Your task to perform on an android device: change notification settings in the gmail app Image 0: 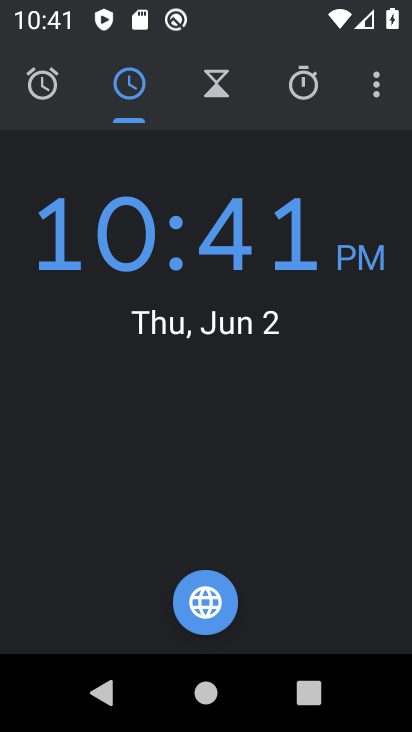
Step 0: press home button
Your task to perform on an android device: change notification settings in the gmail app Image 1: 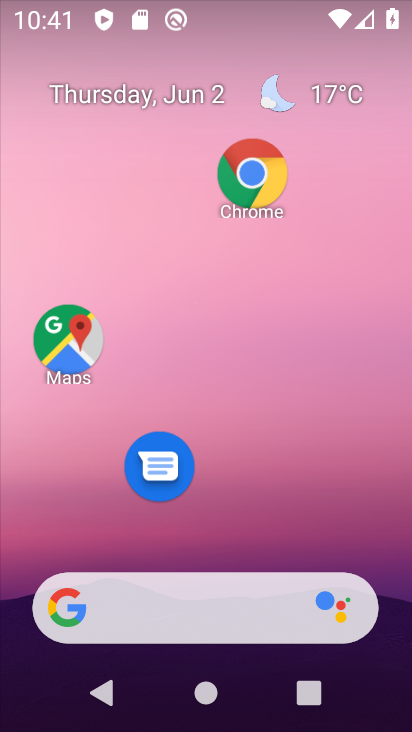
Step 1: drag from (255, 541) to (208, 55)
Your task to perform on an android device: change notification settings in the gmail app Image 2: 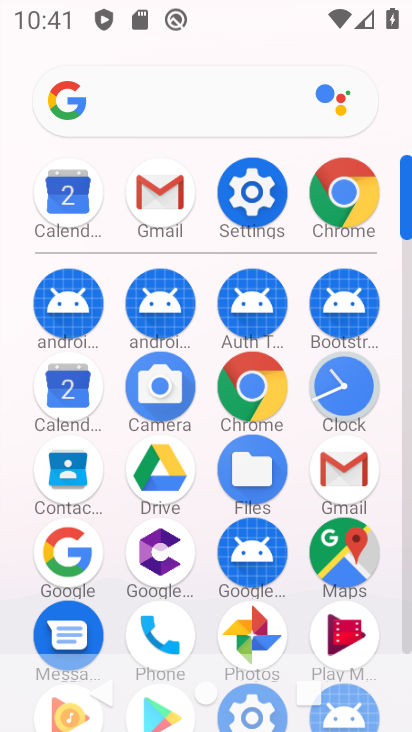
Step 2: click (155, 187)
Your task to perform on an android device: change notification settings in the gmail app Image 3: 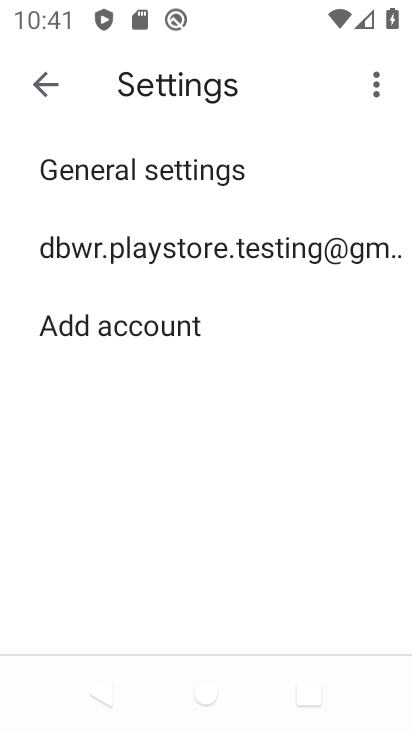
Step 3: click (129, 175)
Your task to perform on an android device: change notification settings in the gmail app Image 4: 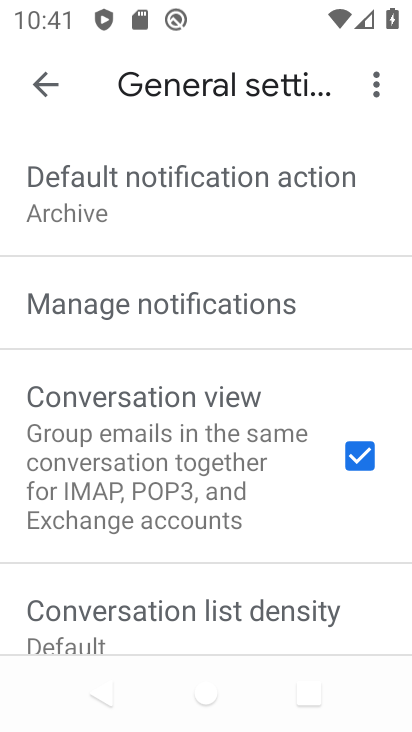
Step 4: click (143, 303)
Your task to perform on an android device: change notification settings in the gmail app Image 5: 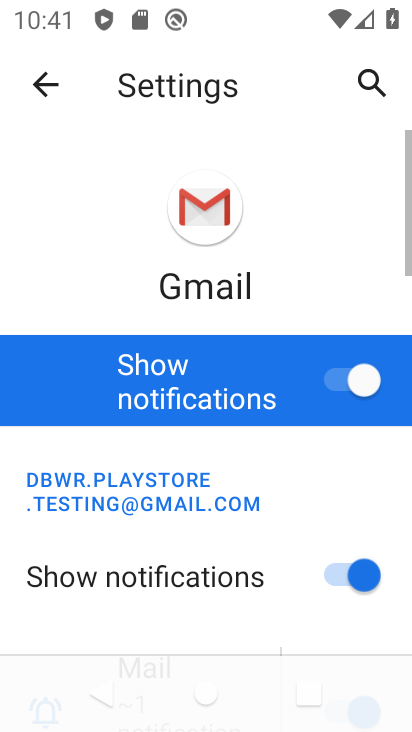
Step 5: click (365, 385)
Your task to perform on an android device: change notification settings in the gmail app Image 6: 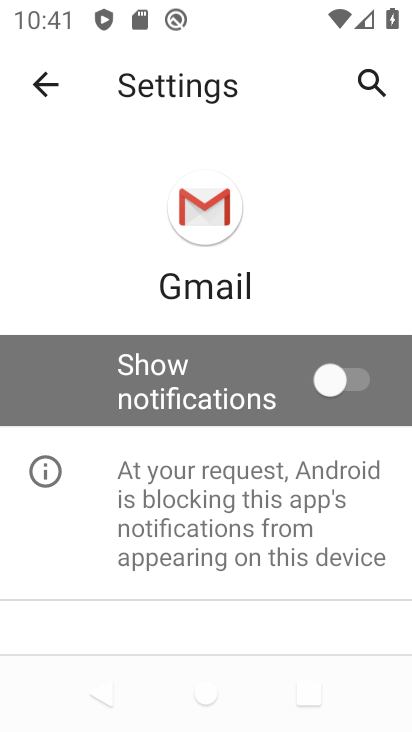
Step 6: task complete